Your task to perform on an android device: Open Youtube and go to the subscriptions tab Image 0: 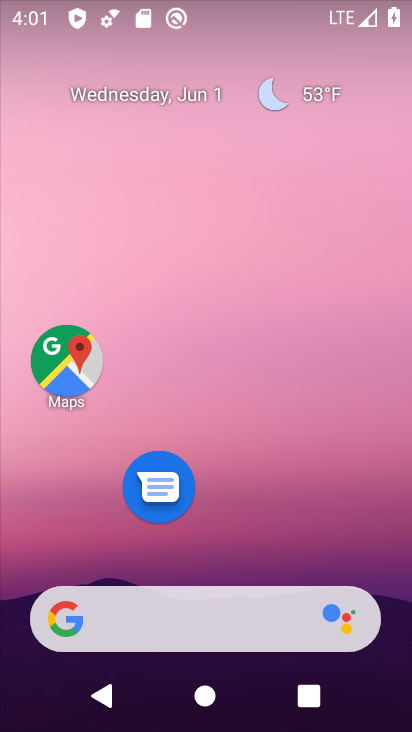
Step 0: drag from (240, 533) to (365, 11)
Your task to perform on an android device: Open Youtube and go to the subscriptions tab Image 1: 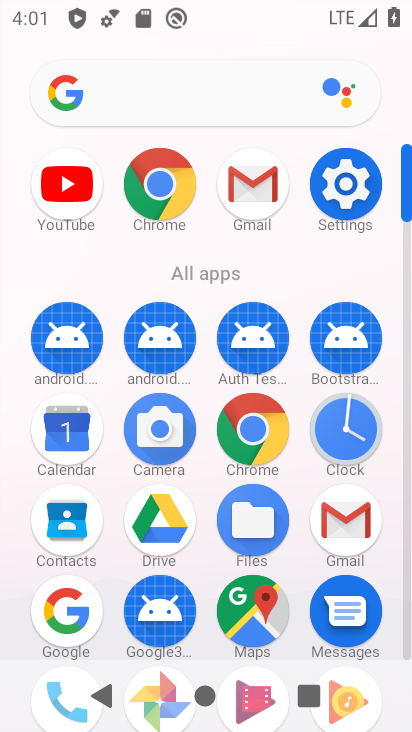
Step 1: click (63, 217)
Your task to perform on an android device: Open Youtube and go to the subscriptions tab Image 2: 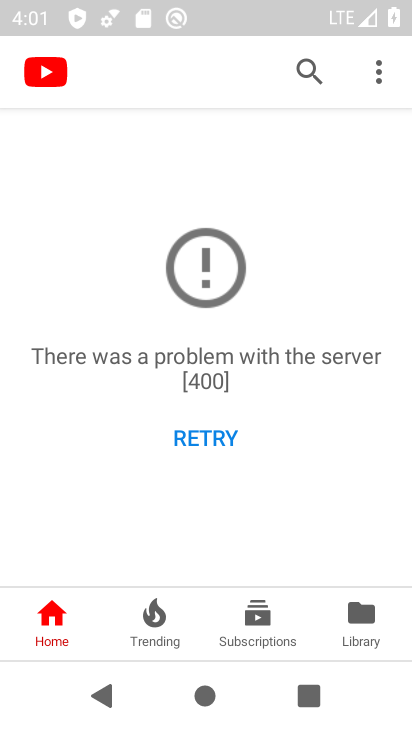
Step 2: click (265, 608)
Your task to perform on an android device: Open Youtube and go to the subscriptions tab Image 3: 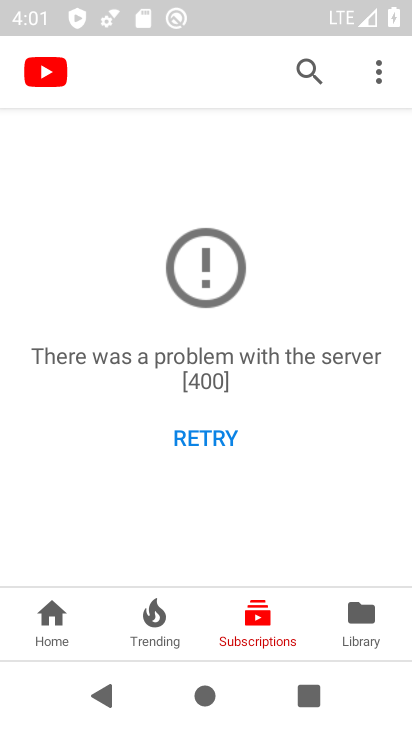
Step 3: click (203, 437)
Your task to perform on an android device: Open Youtube and go to the subscriptions tab Image 4: 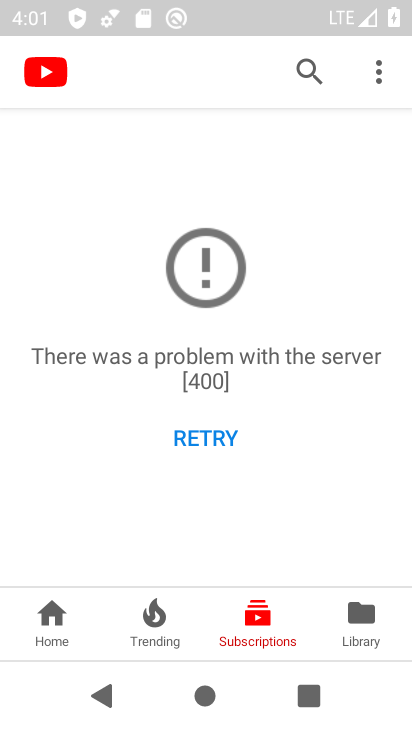
Step 4: click (203, 437)
Your task to perform on an android device: Open Youtube and go to the subscriptions tab Image 5: 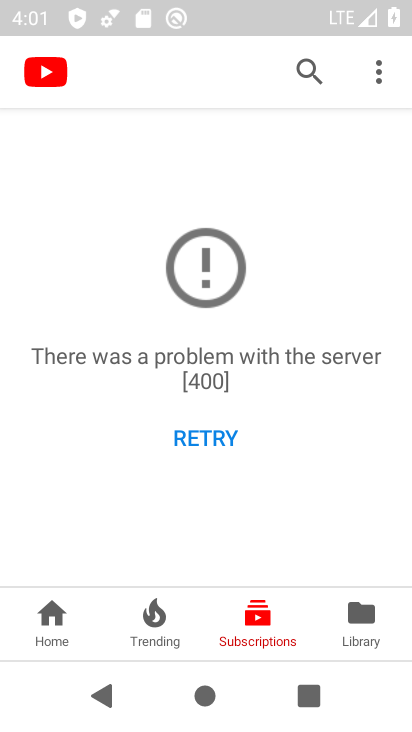
Step 5: click (203, 437)
Your task to perform on an android device: Open Youtube and go to the subscriptions tab Image 6: 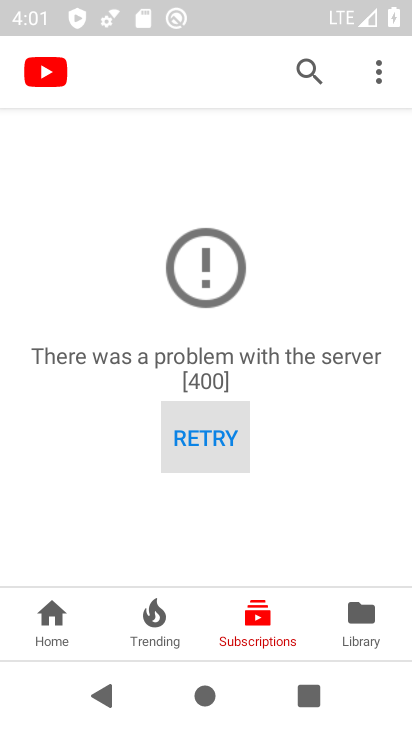
Step 6: click (204, 437)
Your task to perform on an android device: Open Youtube and go to the subscriptions tab Image 7: 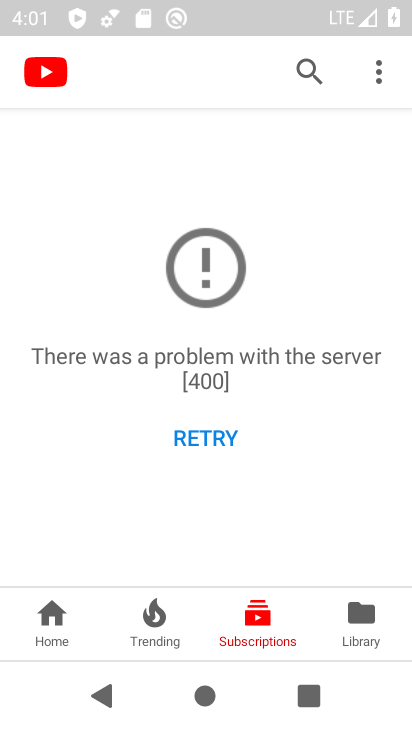
Step 7: task complete